Your task to perform on an android device: toggle sleep mode Image 0: 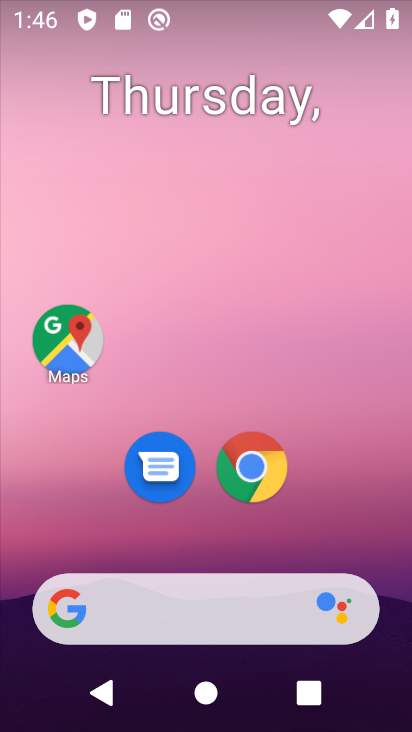
Step 0: press home button
Your task to perform on an android device: toggle sleep mode Image 1: 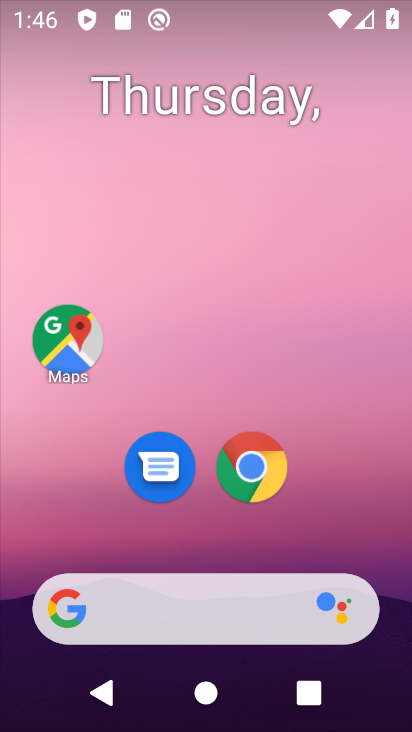
Step 1: drag from (377, 555) to (335, 217)
Your task to perform on an android device: toggle sleep mode Image 2: 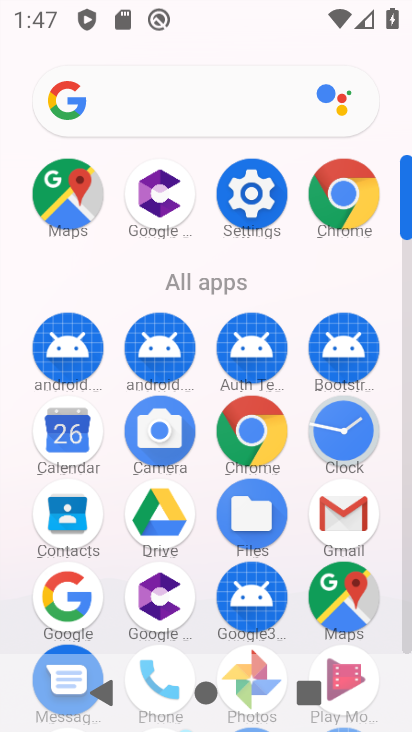
Step 2: click (246, 192)
Your task to perform on an android device: toggle sleep mode Image 3: 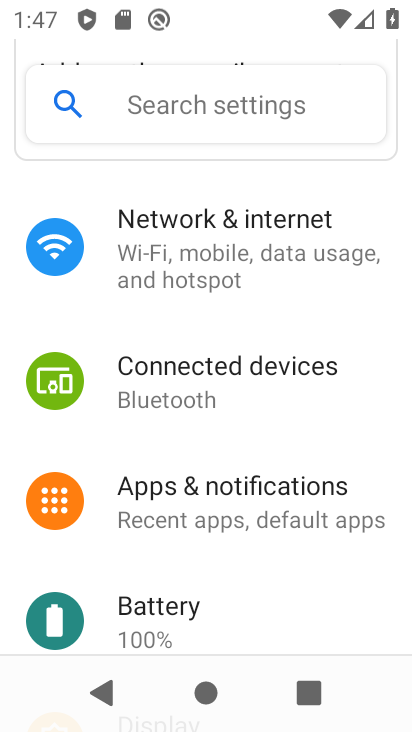
Step 3: click (200, 108)
Your task to perform on an android device: toggle sleep mode Image 4: 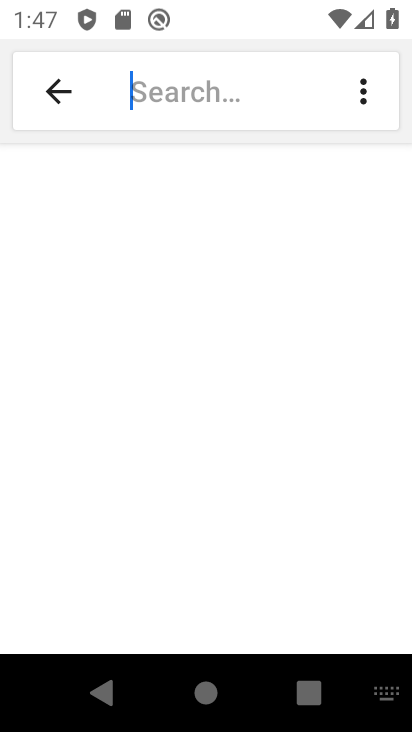
Step 4: type "sleep mode"
Your task to perform on an android device: toggle sleep mode Image 5: 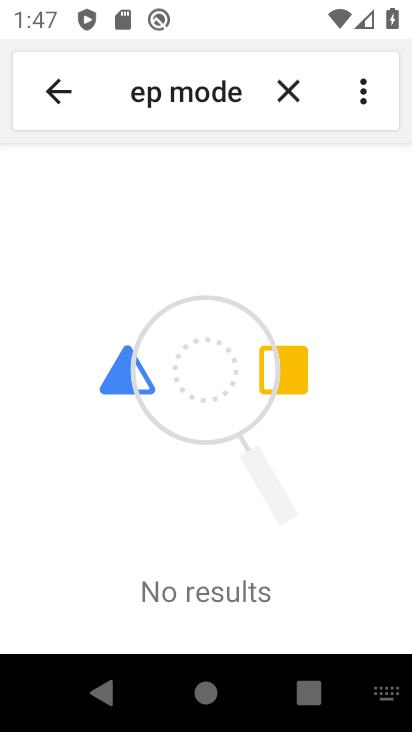
Step 5: task complete